Your task to perform on an android device: Show me productivity apps on the Play Store Image 0: 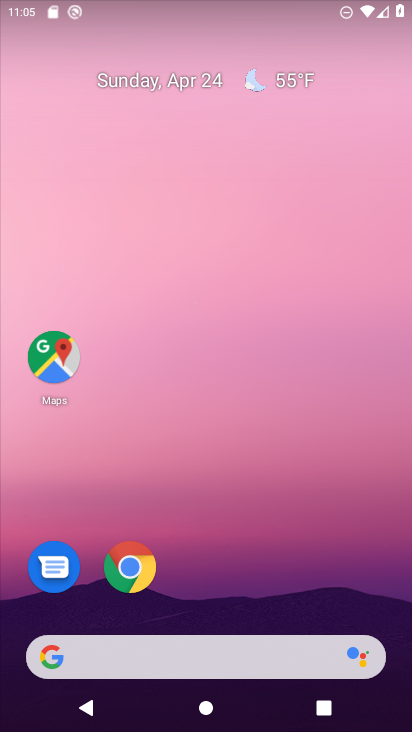
Step 0: drag from (373, 385) to (350, 128)
Your task to perform on an android device: Show me productivity apps on the Play Store Image 1: 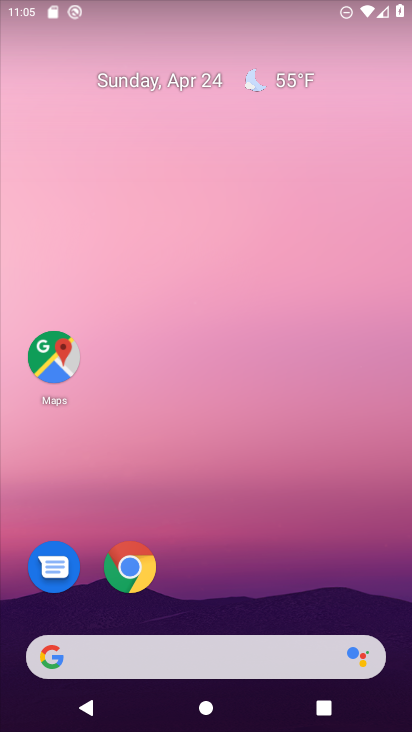
Step 1: drag from (367, 410) to (336, 163)
Your task to perform on an android device: Show me productivity apps on the Play Store Image 2: 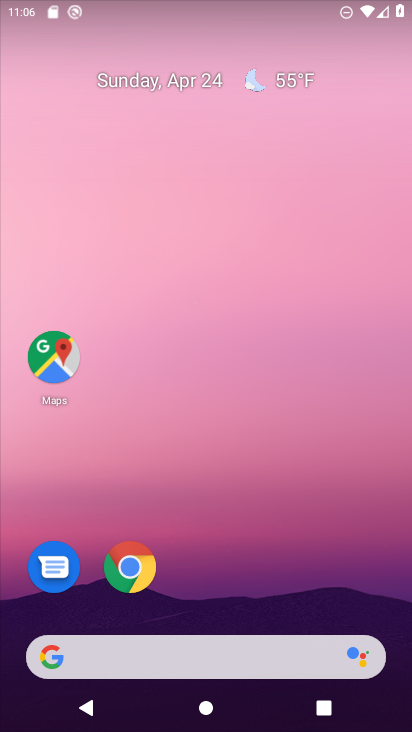
Step 2: drag from (404, 422) to (375, 132)
Your task to perform on an android device: Show me productivity apps on the Play Store Image 3: 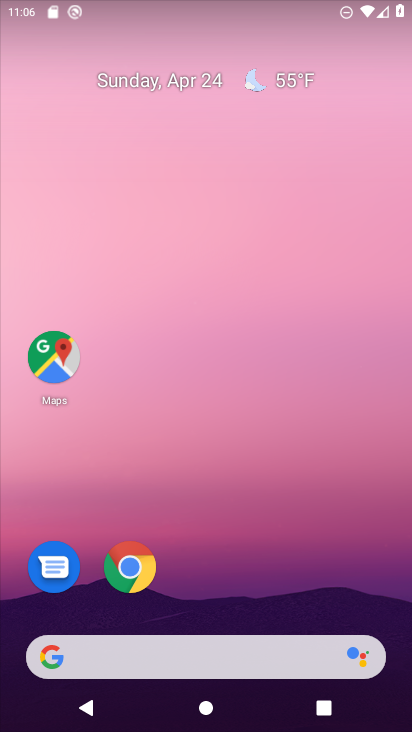
Step 3: drag from (401, 657) to (389, 93)
Your task to perform on an android device: Show me productivity apps on the Play Store Image 4: 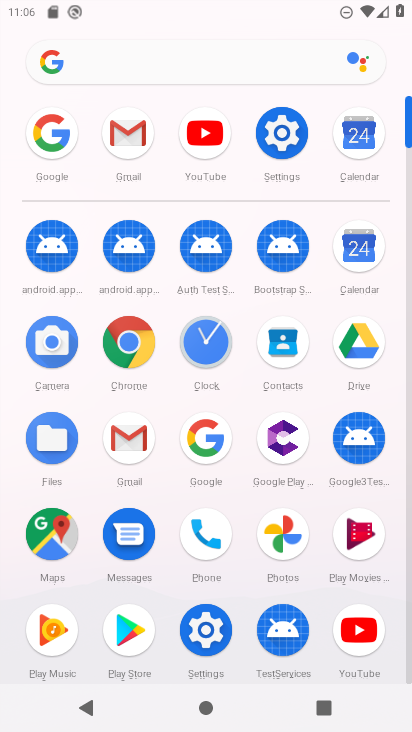
Step 4: click (126, 634)
Your task to perform on an android device: Show me productivity apps on the Play Store Image 5: 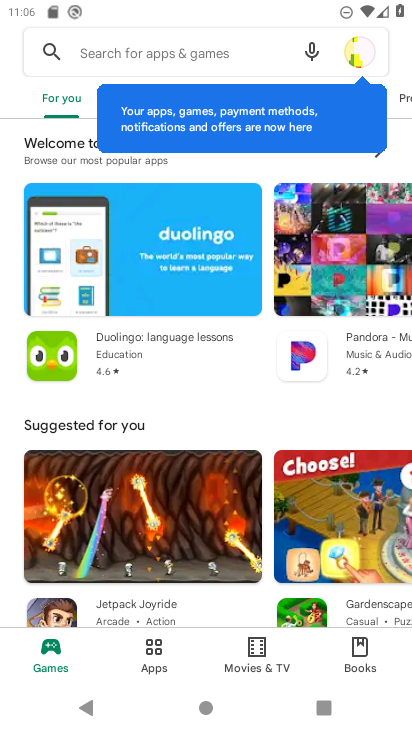
Step 5: click (274, 163)
Your task to perform on an android device: Show me productivity apps on the Play Store Image 6: 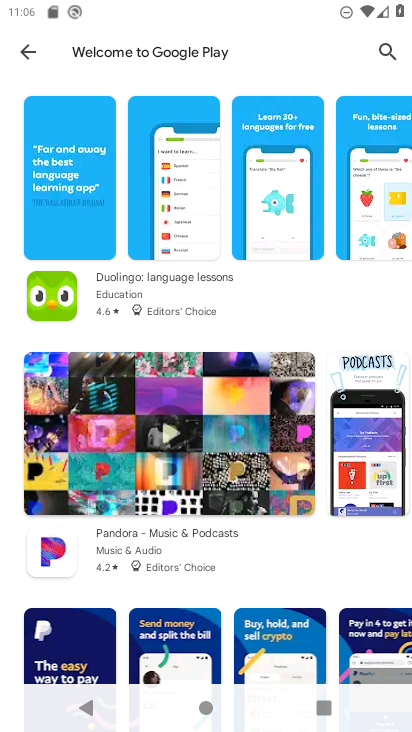
Step 6: click (19, 40)
Your task to perform on an android device: Show me productivity apps on the Play Store Image 7: 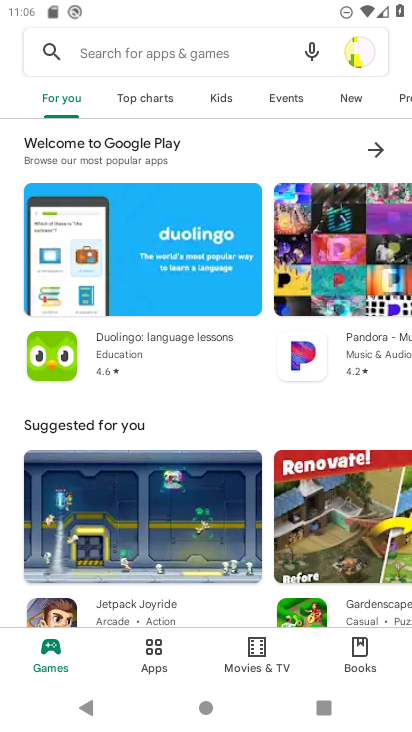
Step 7: click (152, 649)
Your task to perform on an android device: Show me productivity apps on the Play Store Image 8: 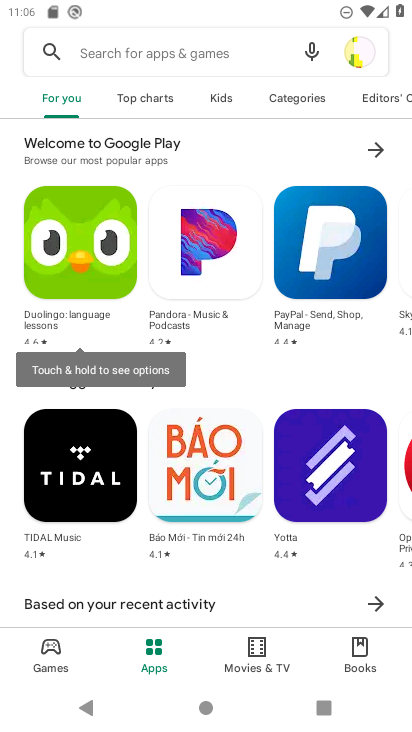
Step 8: click (119, 55)
Your task to perform on an android device: Show me productivity apps on the Play Store Image 9: 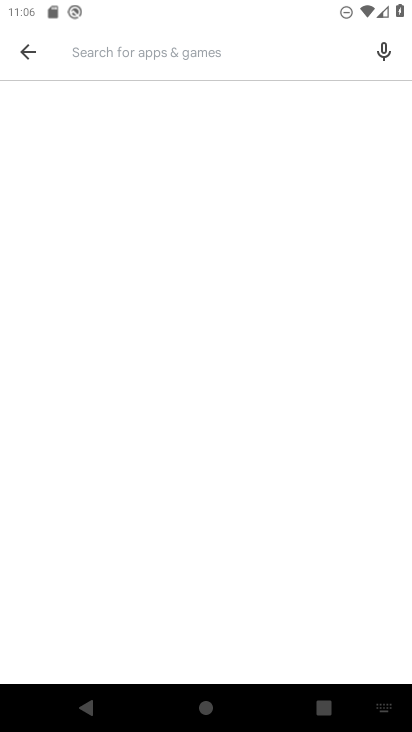
Step 9: click (106, 54)
Your task to perform on an android device: Show me productivity apps on the Play Store Image 10: 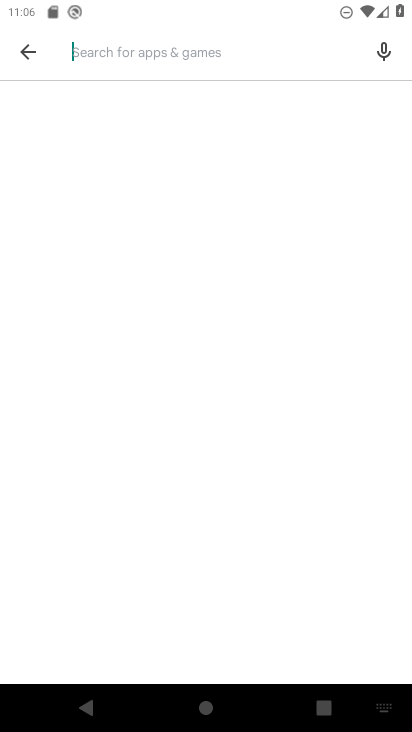
Step 10: type "productivity apps"
Your task to perform on an android device: Show me productivity apps on the Play Store Image 11: 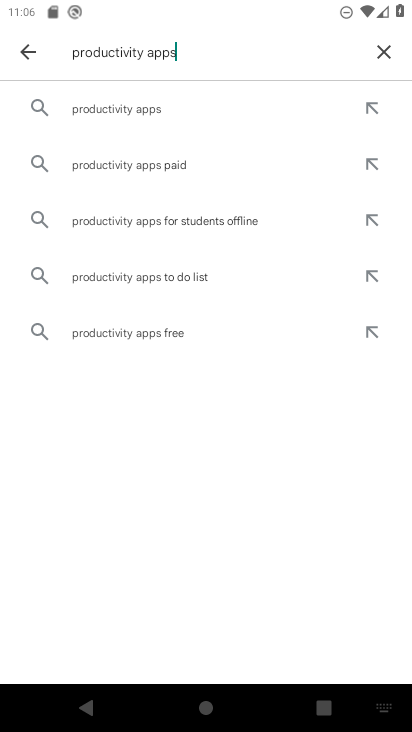
Step 11: click (112, 106)
Your task to perform on an android device: Show me productivity apps on the Play Store Image 12: 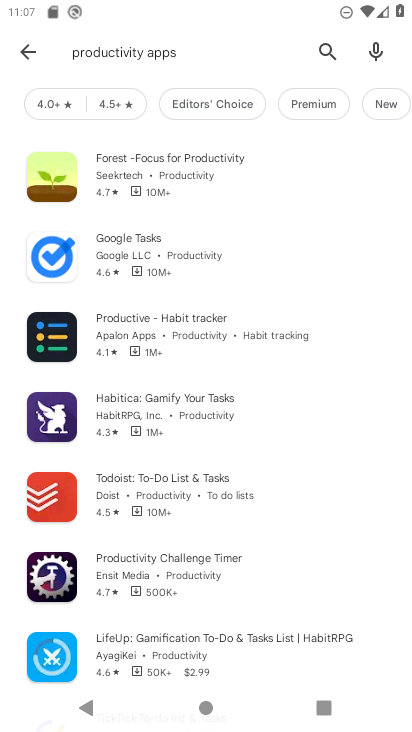
Step 12: task complete